Your task to perform on an android device: Search for hotels in Sydney Image 0: 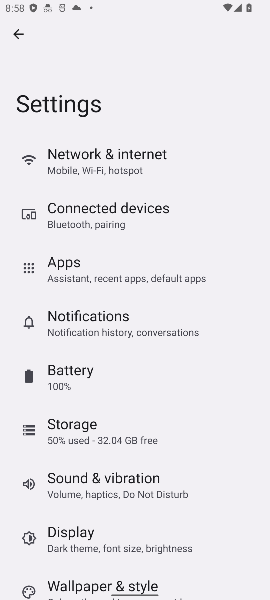
Step 0: press home button
Your task to perform on an android device: Search for hotels in Sydney Image 1: 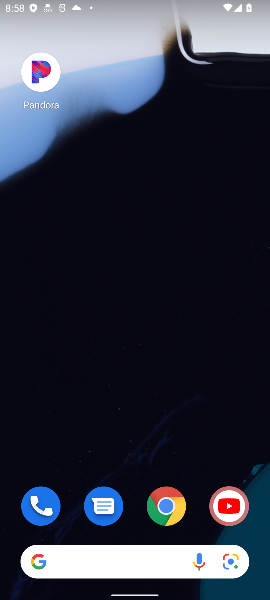
Step 1: click (170, 507)
Your task to perform on an android device: Search for hotels in Sydney Image 2: 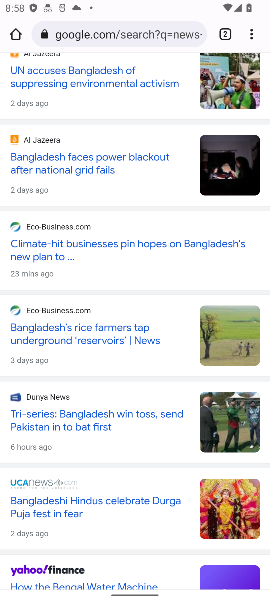
Step 2: click (157, 32)
Your task to perform on an android device: Search for hotels in Sydney Image 3: 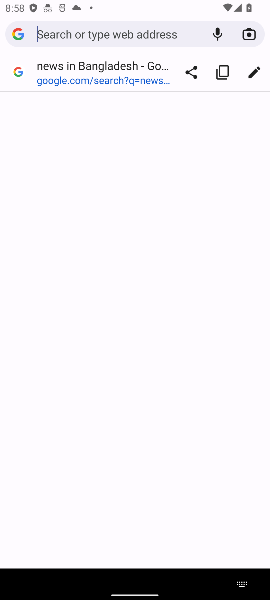
Step 3: type "hotels in Sydney"
Your task to perform on an android device: Search for hotels in Sydney Image 4: 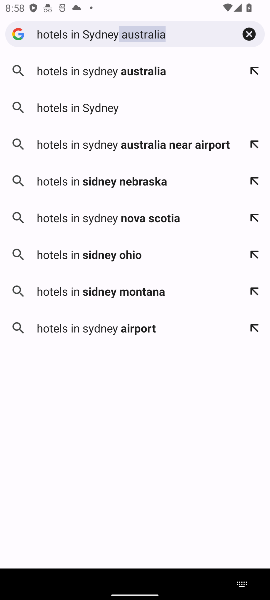
Step 4: click (115, 72)
Your task to perform on an android device: Search for hotels in Sydney Image 5: 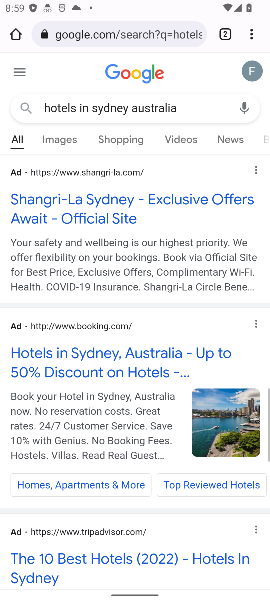
Step 5: drag from (93, 502) to (123, 427)
Your task to perform on an android device: Search for hotels in Sydney Image 6: 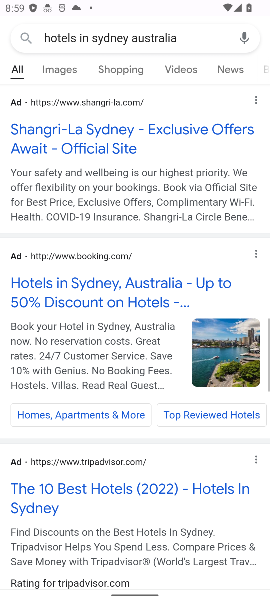
Step 6: drag from (106, 519) to (128, 413)
Your task to perform on an android device: Search for hotels in Sydney Image 7: 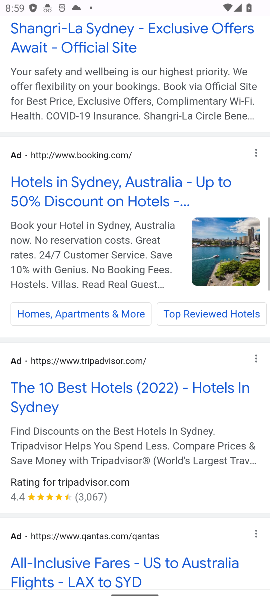
Step 7: click (121, 387)
Your task to perform on an android device: Search for hotels in Sydney Image 8: 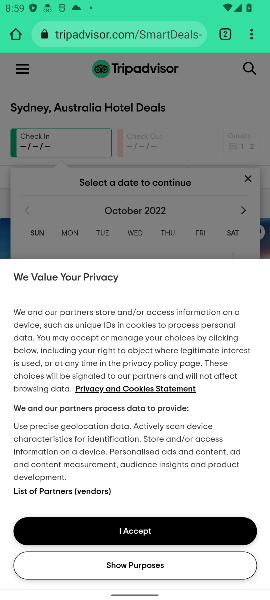
Step 8: click (131, 531)
Your task to perform on an android device: Search for hotels in Sydney Image 9: 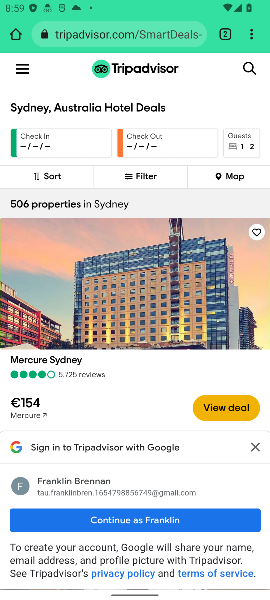
Step 9: drag from (82, 502) to (171, 116)
Your task to perform on an android device: Search for hotels in Sydney Image 10: 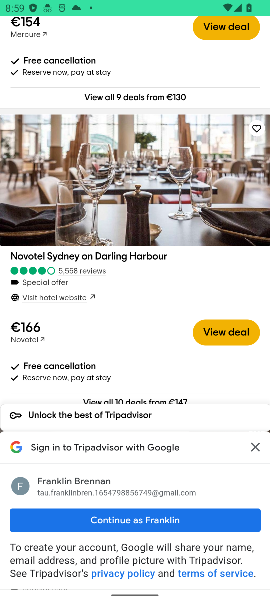
Step 10: click (164, 528)
Your task to perform on an android device: Search for hotels in Sydney Image 11: 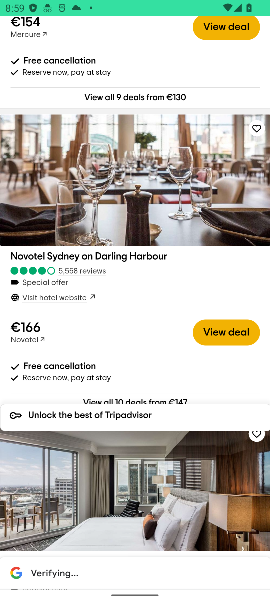
Step 11: task complete